Your task to perform on an android device: Open calendar and show me the third week of next month Image 0: 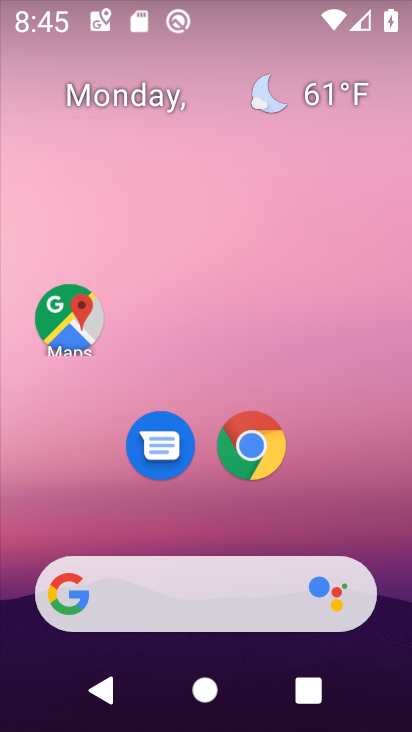
Step 0: drag from (207, 534) to (215, 99)
Your task to perform on an android device: Open calendar and show me the third week of next month Image 1: 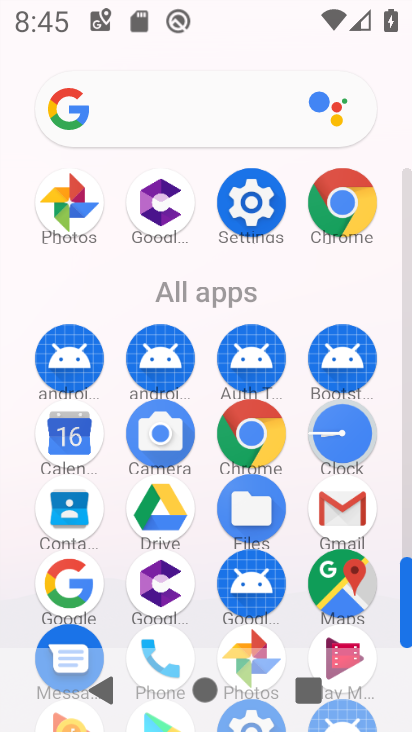
Step 1: click (70, 430)
Your task to perform on an android device: Open calendar and show me the third week of next month Image 2: 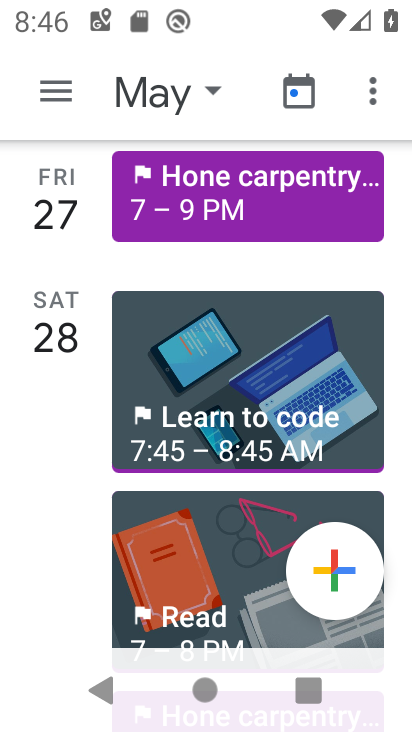
Step 2: click (207, 92)
Your task to perform on an android device: Open calendar and show me the third week of next month Image 3: 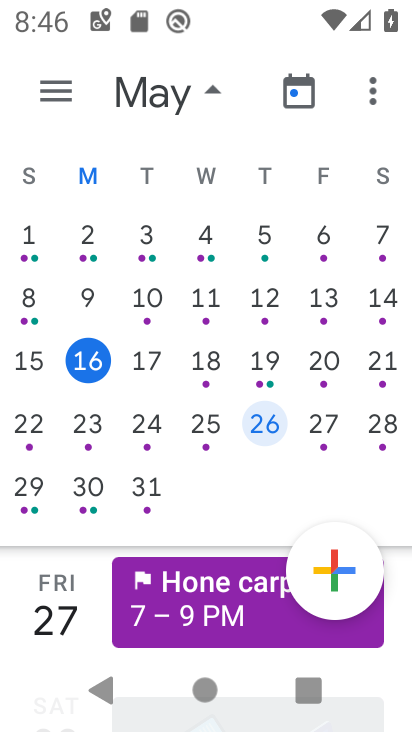
Step 3: drag from (360, 373) to (1, 344)
Your task to perform on an android device: Open calendar and show me the third week of next month Image 4: 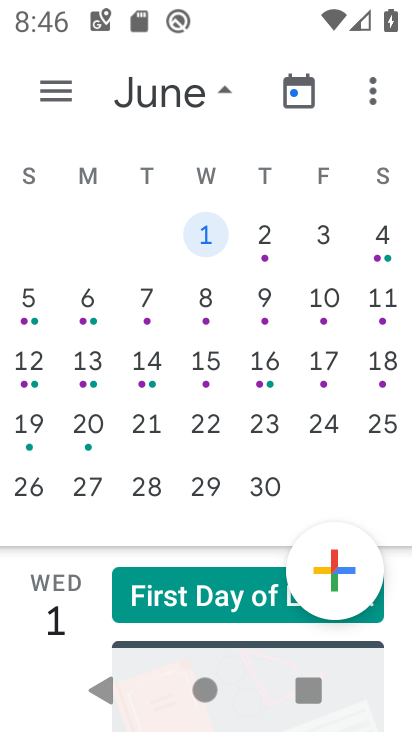
Step 4: click (28, 361)
Your task to perform on an android device: Open calendar and show me the third week of next month Image 5: 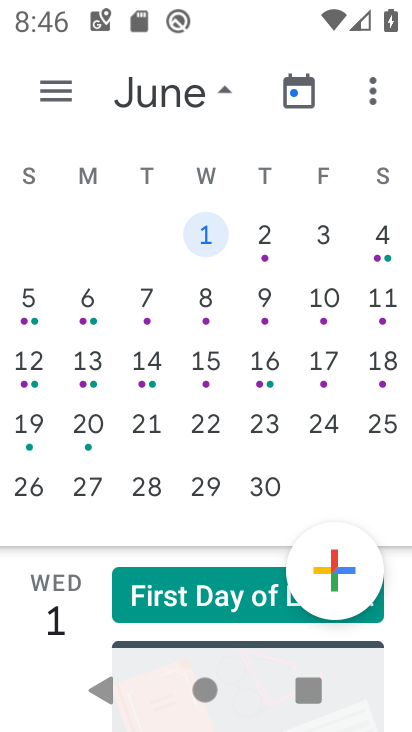
Step 5: click (26, 361)
Your task to perform on an android device: Open calendar and show me the third week of next month Image 6: 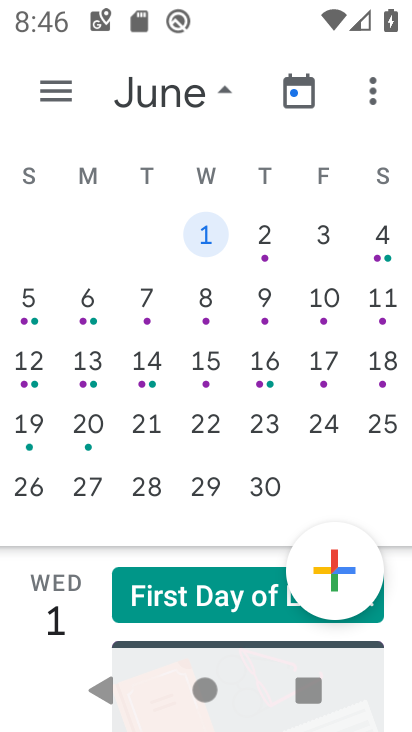
Step 6: click (41, 360)
Your task to perform on an android device: Open calendar and show me the third week of next month Image 7: 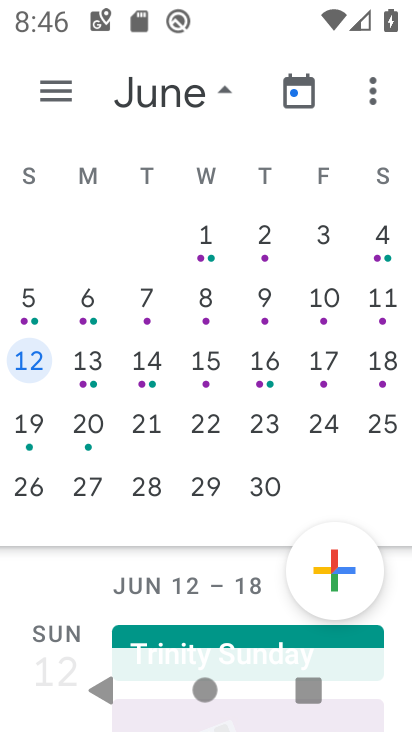
Step 7: click (45, 358)
Your task to perform on an android device: Open calendar and show me the third week of next month Image 8: 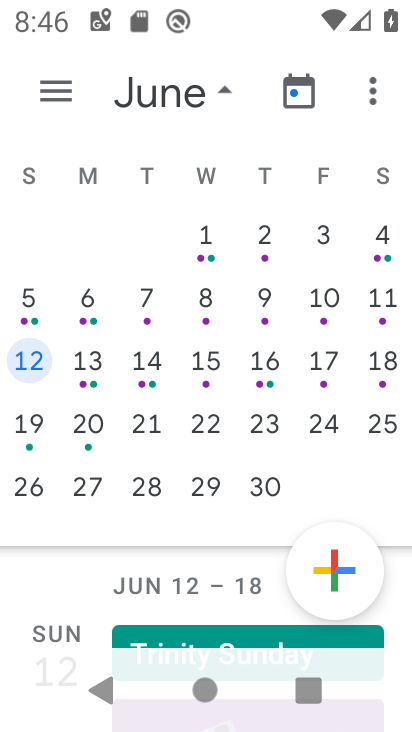
Step 8: click (39, 352)
Your task to perform on an android device: Open calendar and show me the third week of next month Image 9: 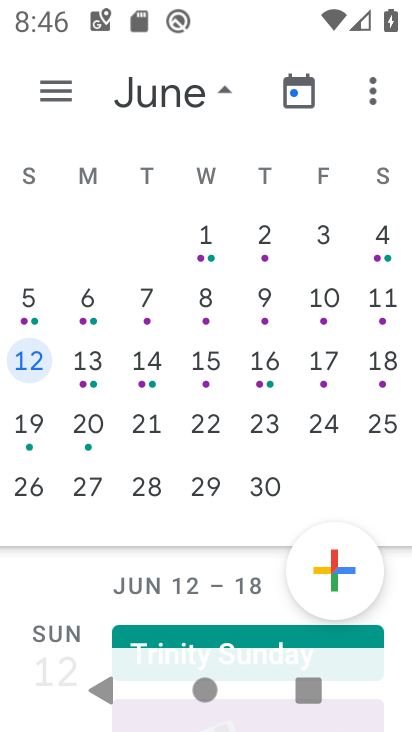
Step 9: click (203, 96)
Your task to perform on an android device: Open calendar and show me the third week of next month Image 10: 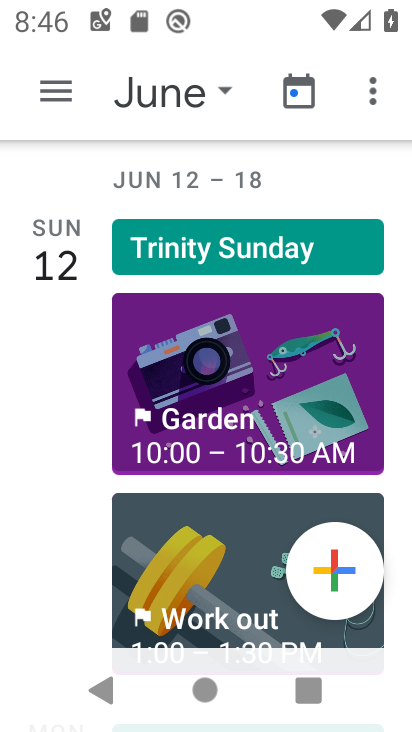
Step 10: task complete